Your task to perform on an android device: Search for hotels in London Image 0: 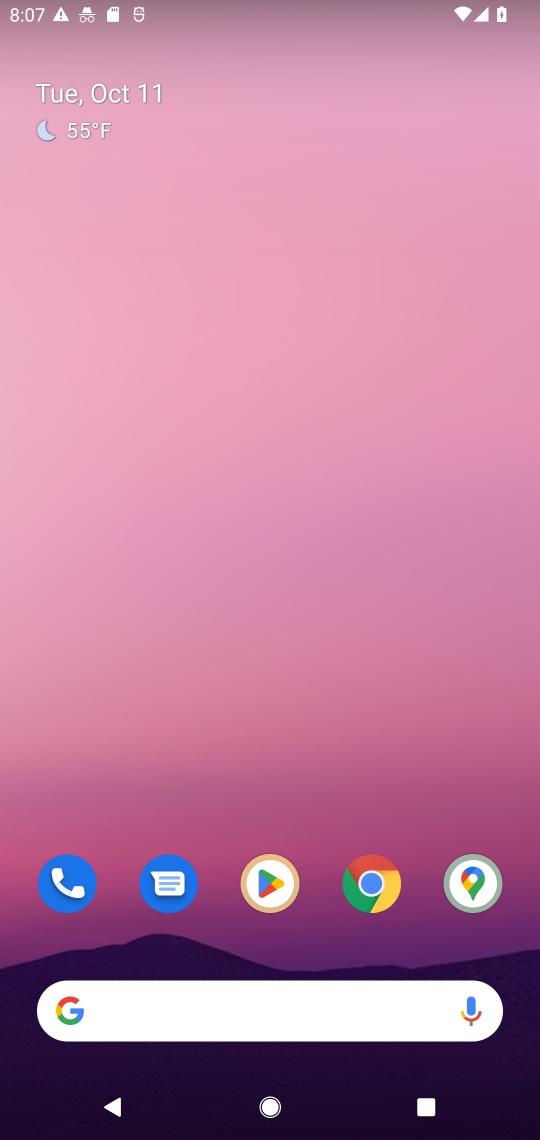
Step 0: drag from (321, 963) to (295, 97)
Your task to perform on an android device: Search for hotels in London Image 1: 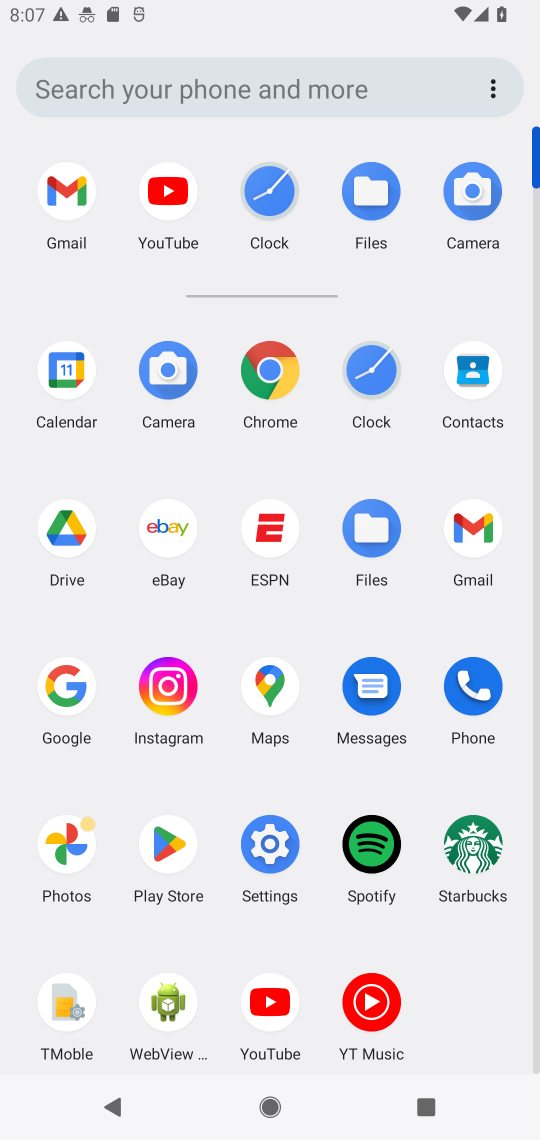
Step 1: click (263, 373)
Your task to perform on an android device: Search for hotels in London Image 2: 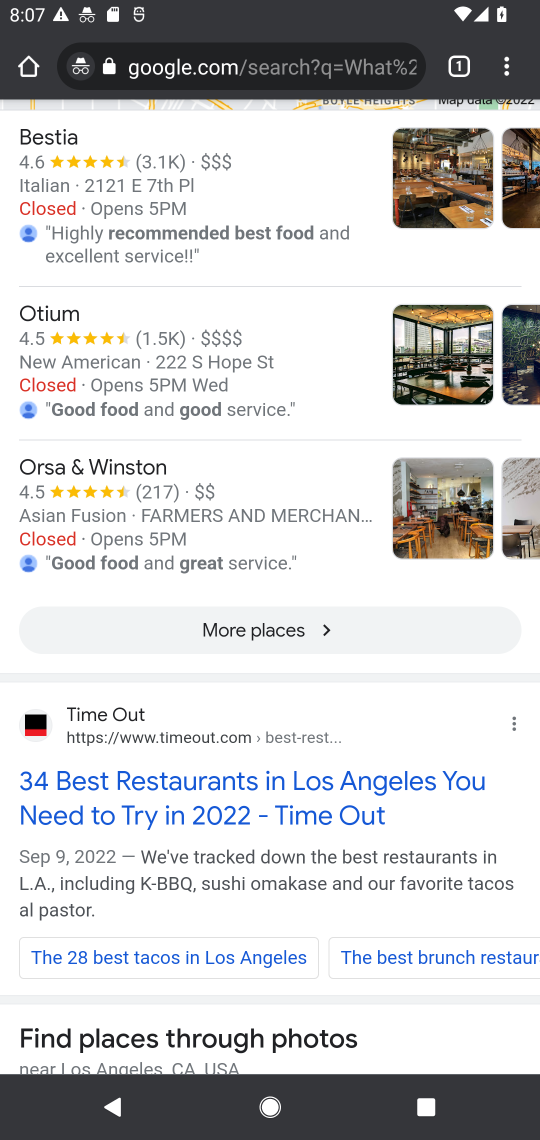
Step 2: click (292, 55)
Your task to perform on an android device: Search for hotels in London Image 3: 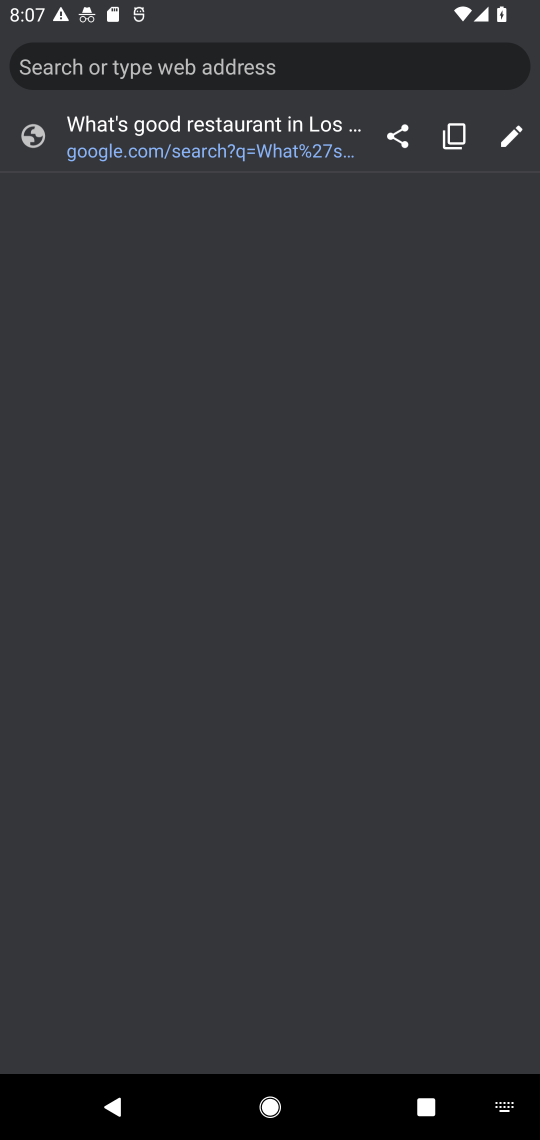
Step 3: type "hotels in London"
Your task to perform on an android device: Search for hotels in London Image 4: 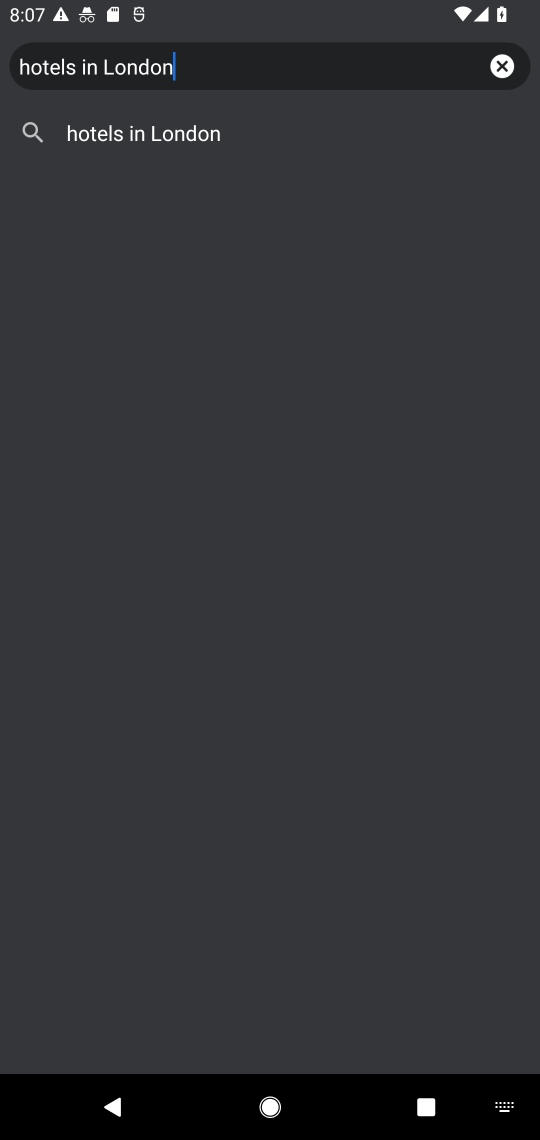
Step 4: press enter
Your task to perform on an android device: Search for hotels in London Image 5: 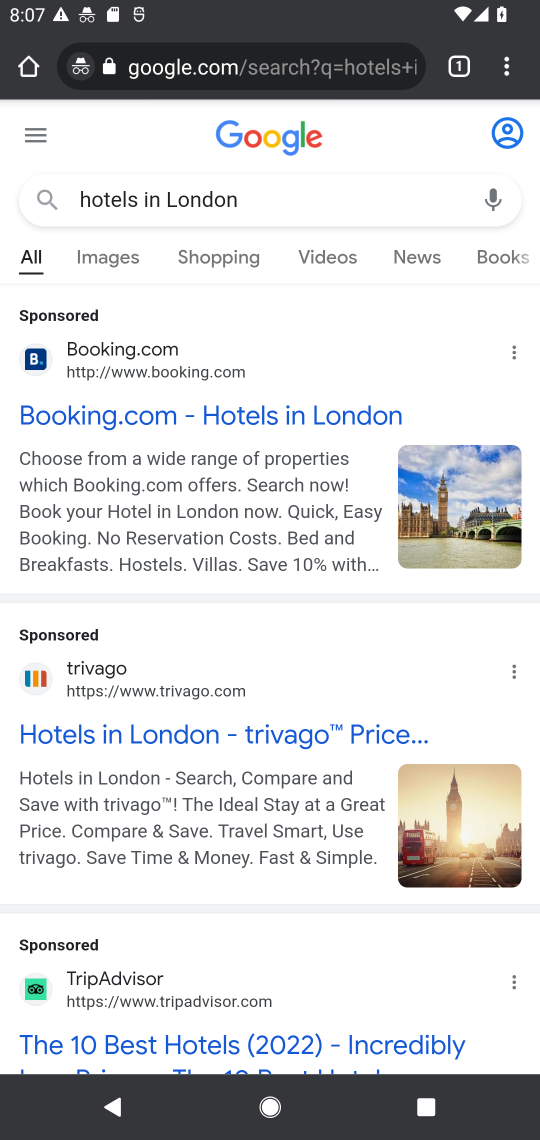
Step 5: task complete